Your task to perform on an android device: remove spam from my inbox in the gmail app Image 0: 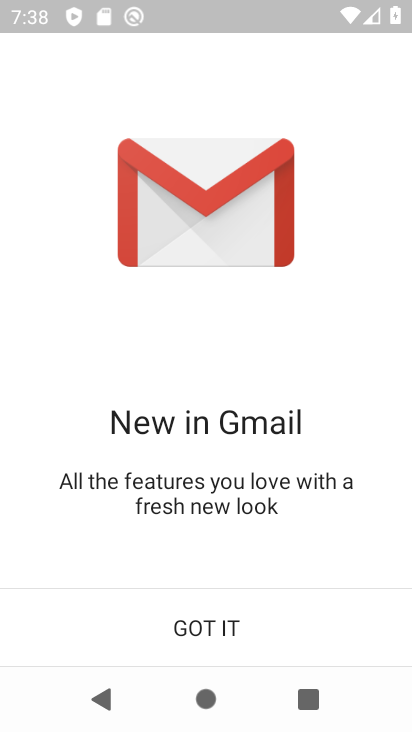
Step 0: click (240, 615)
Your task to perform on an android device: remove spam from my inbox in the gmail app Image 1: 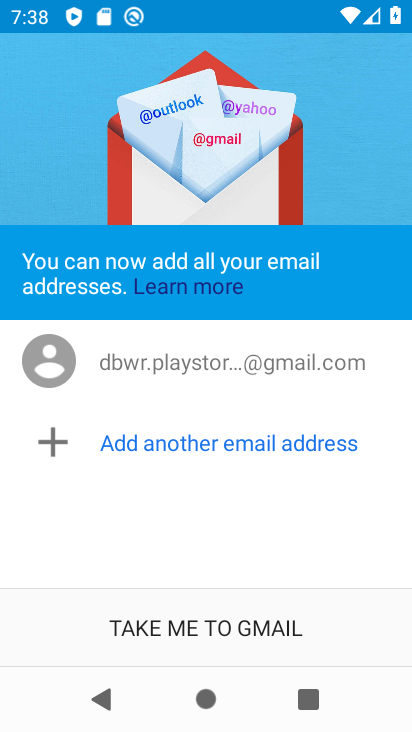
Step 1: click (240, 615)
Your task to perform on an android device: remove spam from my inbox in the gmail app Image 2: 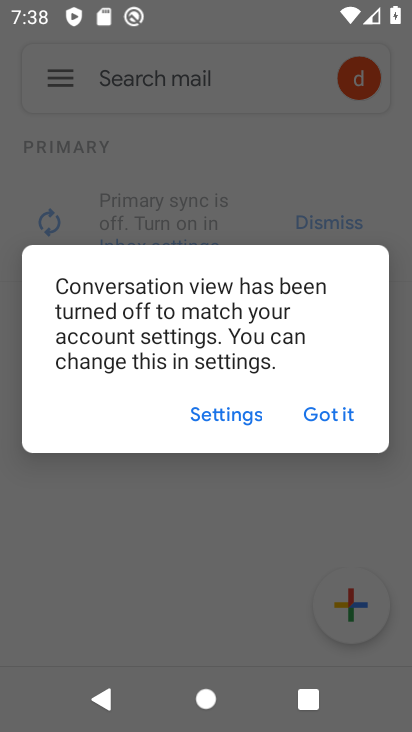
Step 2: click (351, 416)
Your task to perform on an android device: remove spam from my inbox in the gmail app Image 3: 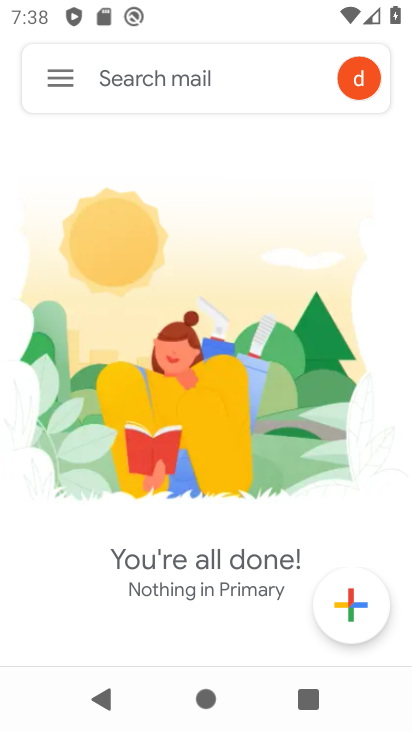
Step 3: click (37, 73)
Your task to perform on an android device: remove spam from my inbox in the gmail app Image 4: 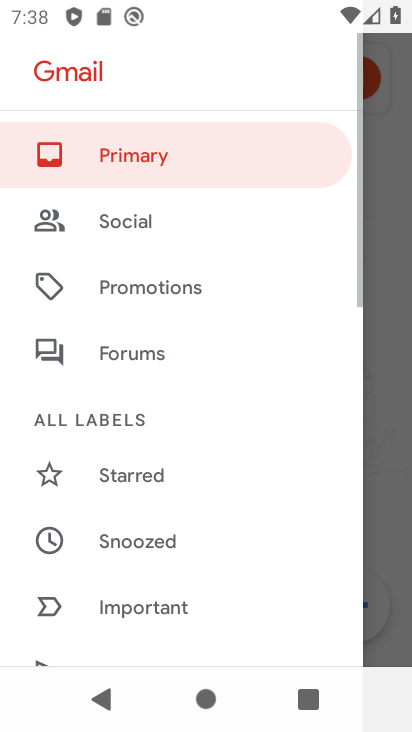
Step 4: drag from (134, 465) to (221, 89)
Your task to perform on an android device: remove spam from my inbox in the gmail app Image 5: 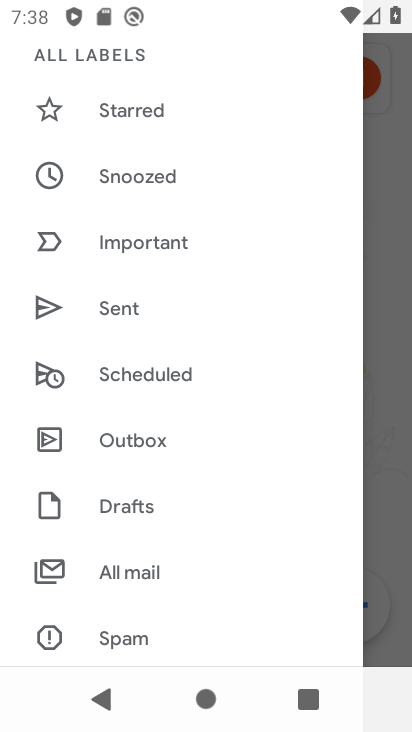
Step 5: drag from (141, 527) to (210, 201)
Your task to perform on an android device: remove spam from my inbox in the gmail app Image 6: 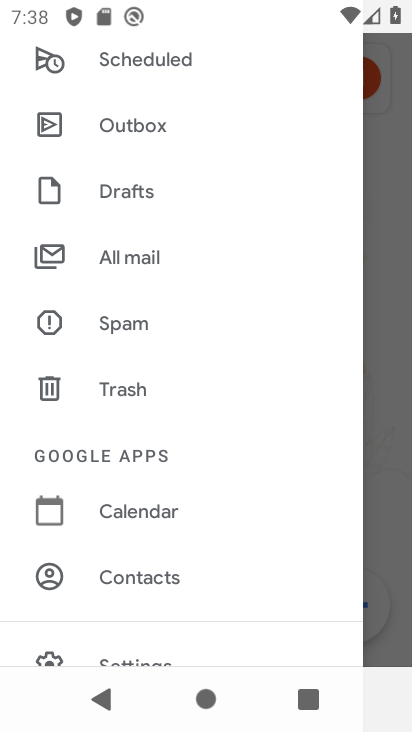
Step 6: click (109, 325)
Your task to perform on an android device: remove spam from my inbox in the gmail app Image 7: 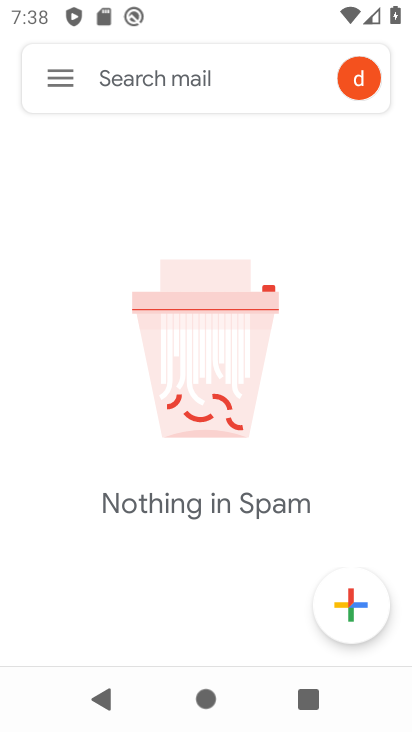
Step 7: click (66, 84)
Your task to perform on an android device: remove spam from my inbox in the gmail app Image 8: 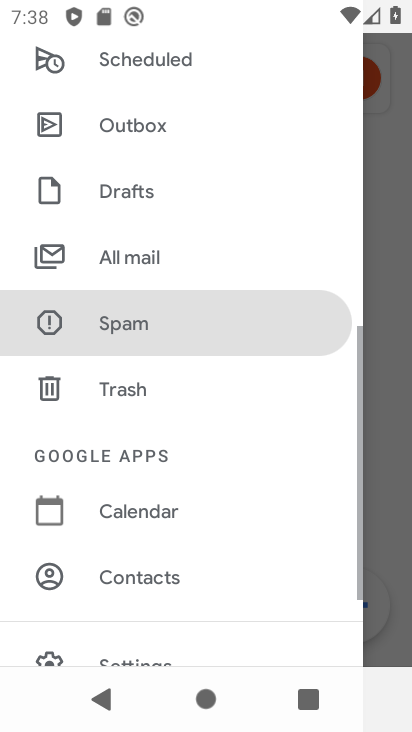
Step 8: drag from (163, 156) to (140, 580)
Your task to perform on an android device: remove spam from my inbox in the gmail app Image 9: 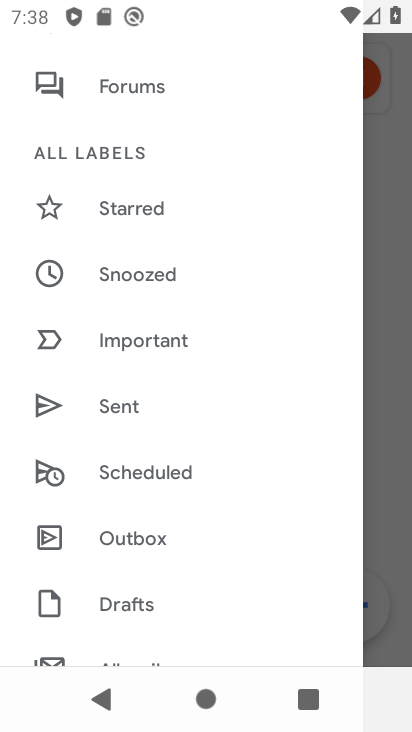
Step 9: drag from (189, 111) to (198, 347)
Your task to perform on an android device: remove spam from my inbox in the gmail app Image 10: 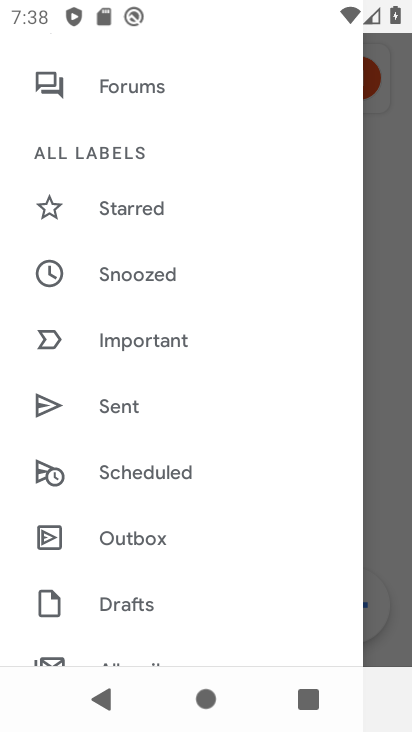
Step 10: drag from (92, 149) to (122, 551)
Your task to perform on an android device: remove spam from my inbox in the gmail app Image 11: 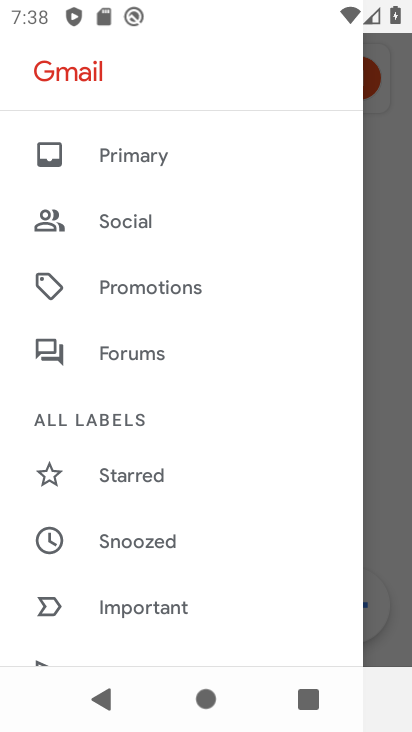
Step 11: click (120, 145)
Your task to perform on an android device: remove spam from my inbox in the gmail app Image 12: 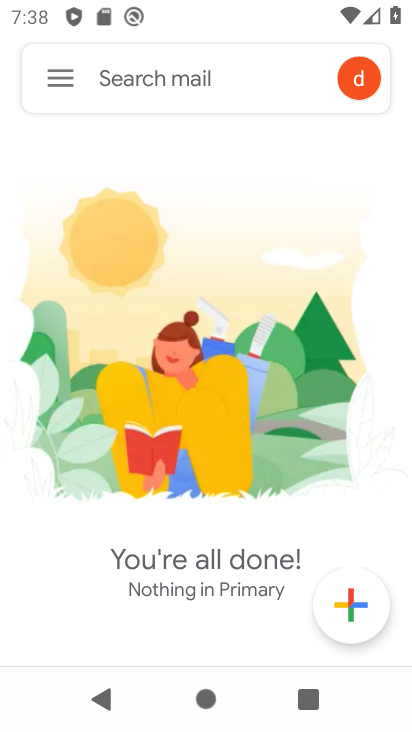
Step 12: task complete